Your task to perform on an android device: Open Youtube and go to "Your channel" Image 0: 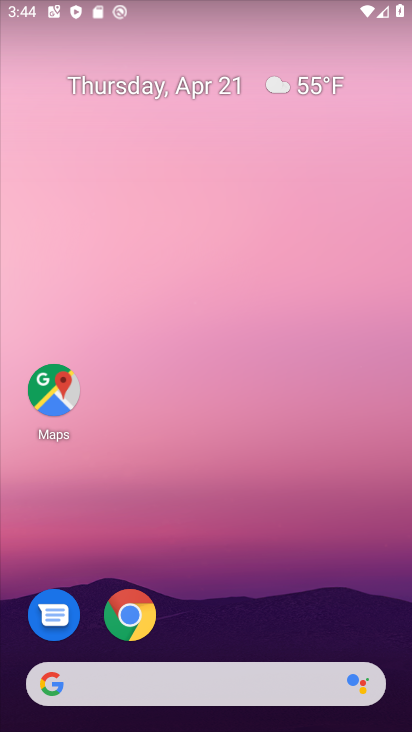
Step 0: drag from (246, 501) to (196, 43)
Your task to perform on an android device: Open Youtube and go to "Your channel" Image 1: 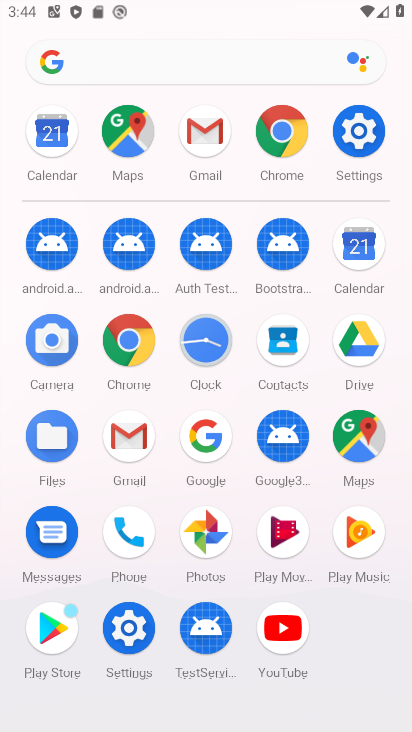
Step 1: drag from (0, 551) to (7, 390)
Your task to perform on an android device: Open Youtube and go to "Your channel" Image 2: 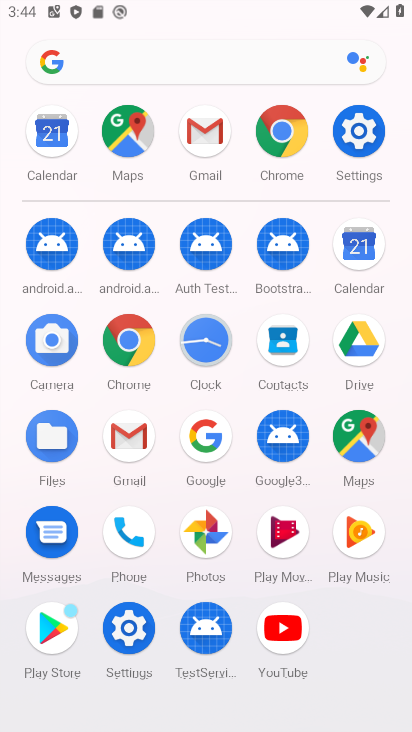
Step 2: click (278, 625)
Your task to perform on an android device: Open Youtube and go to "Your channel" Image 3: 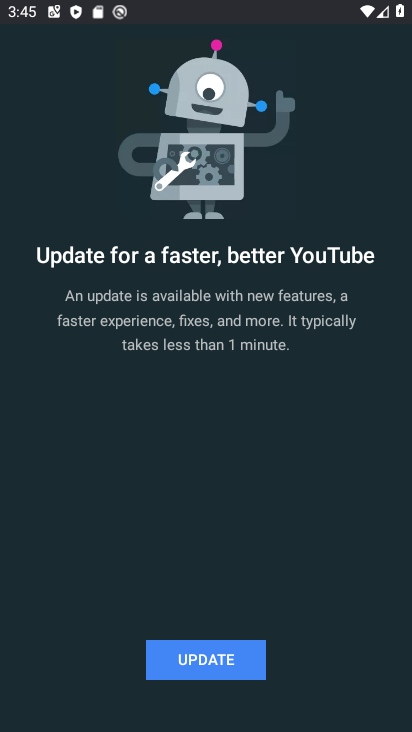
Step 3: click (218, 661)
Your task to perform on an android device: Open Youtube and go to "Your channel" Image 4: 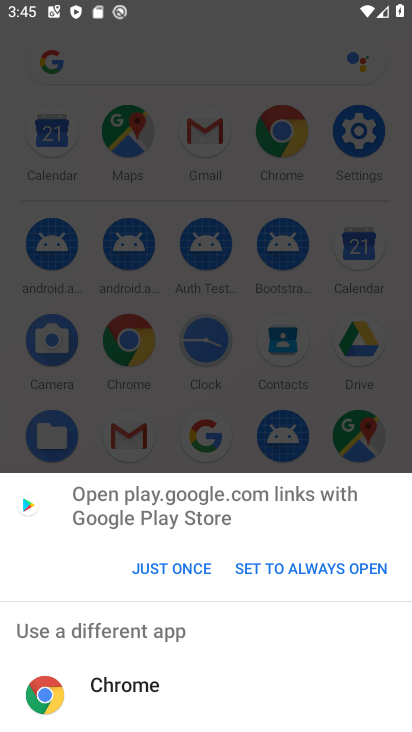
Step 4: click (157, 573)
Your task to perform on an android device: Open Youtube and go to "Your channel" Image 5: 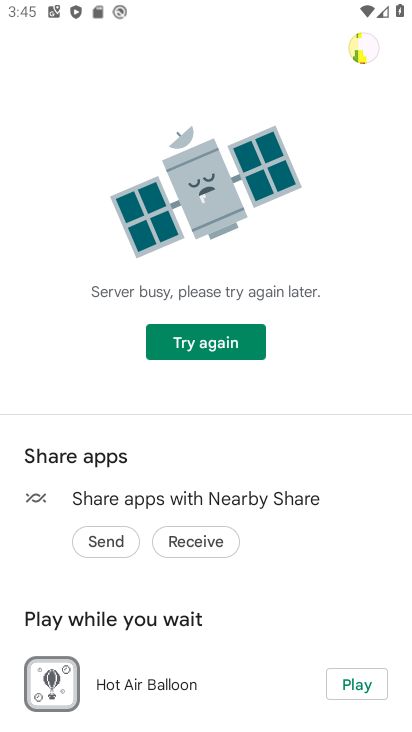
Step 5: click (206, 326)
Your task to perform on an android device: Open Youtube and go to "Your channel" Image 6: 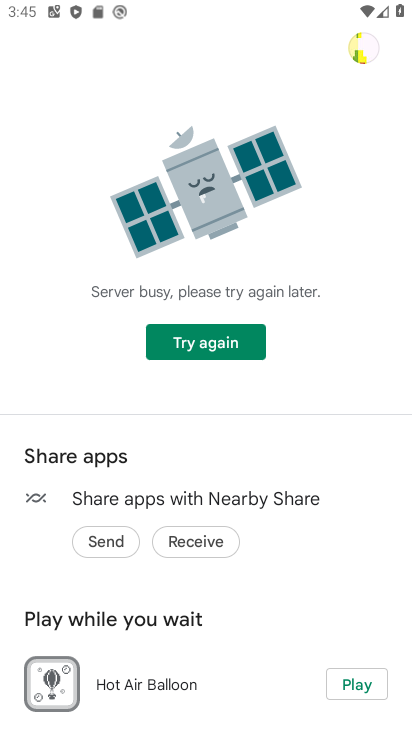
Step 6: click (187, 338)
Your task to perform on an android device: Open Youtube and go to "Your channel" Image 7: 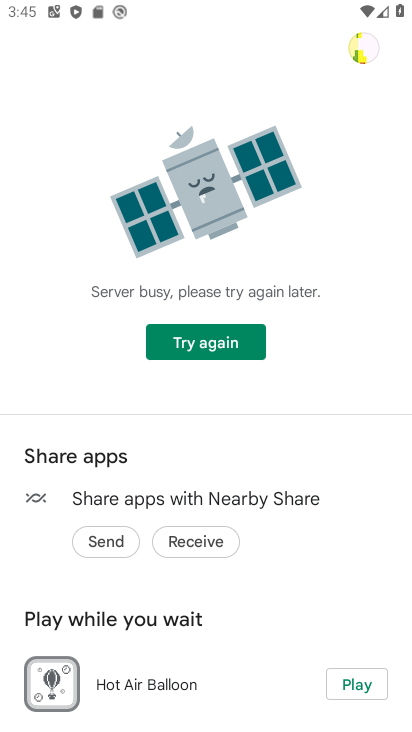
Step 7: task complete